Your task to perform on an android device: What's on my calendar tomorrow? Image 0: 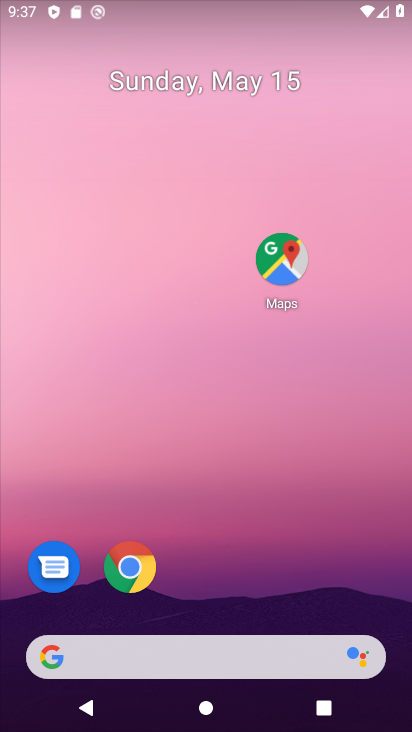
Step 0: drag from (244, 562) to (297, 96)
Your task to perform on an android device: What's on my calendar tomorrow? Image 1: 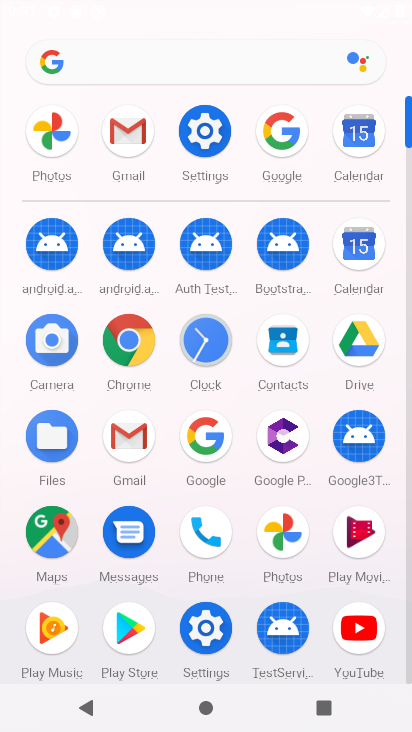
Step 1: click (356, 247)
Your task to perform on an android device: What's on my calendar tomorrow? Image 2: 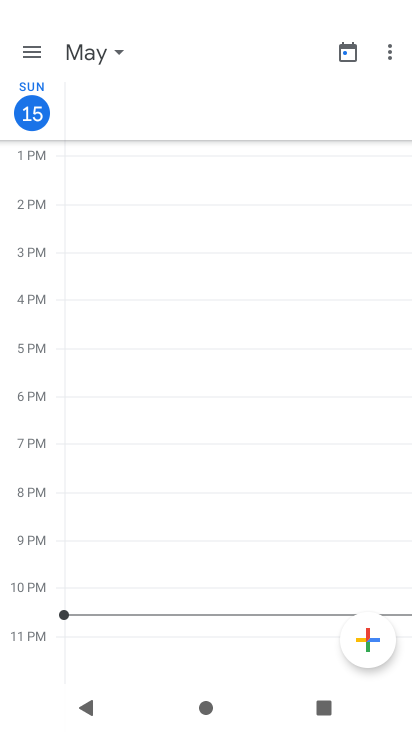
Step 2: click (364, 245)
Your task to perform on an android device: What's on my calendar tomorrow? Image 3: 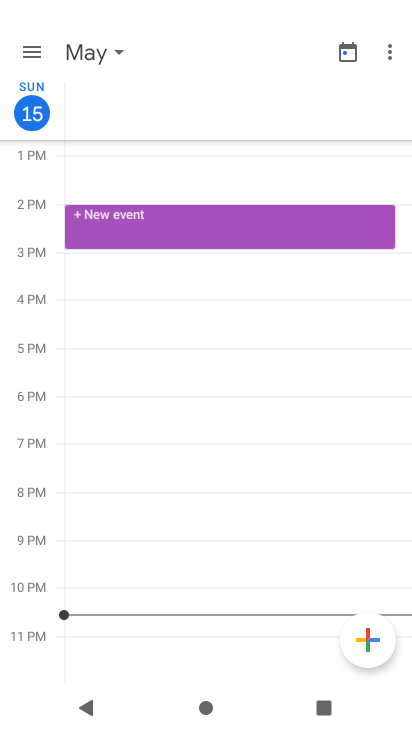
Step 3: click (117, 55)
Your task to perform on an android device: What's on my calendar tomorrow? Image 4: 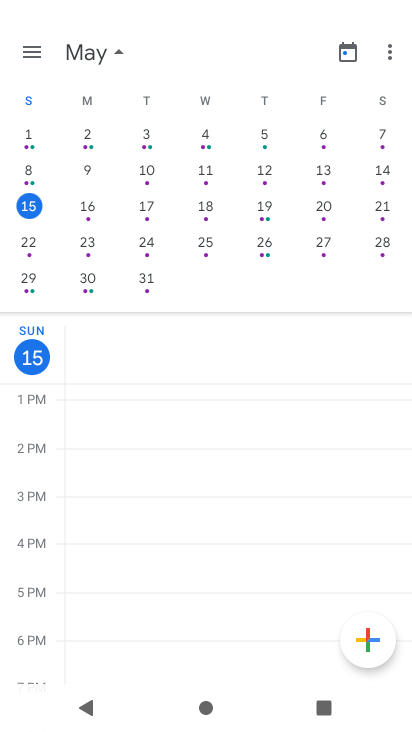
Step 4: click (84, 207)
Your task to perform on an android device: What's on my calendar tomorrow? Image 5: 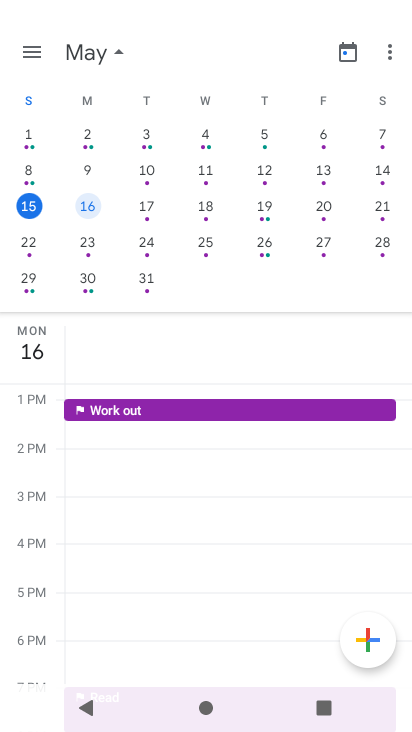
Step 5: task complete